Your task to perform on an android device: turn off notifications settings in the gmail app Image 0: 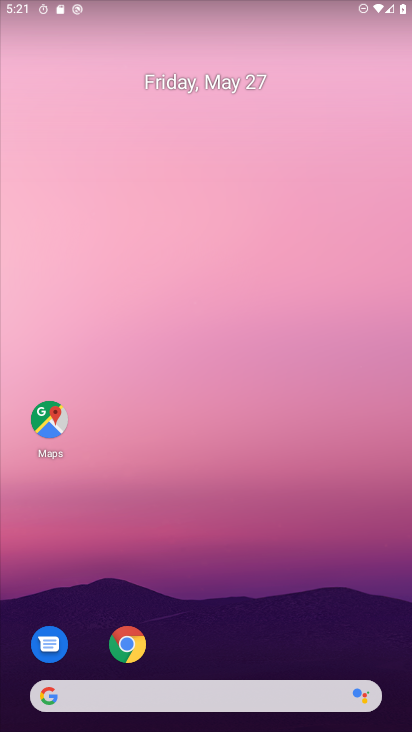
Step 0: drag from (211, 640) to (214, 6)
Your task to perform on an android device: turn off notifications settings in the gmail app Image 1: 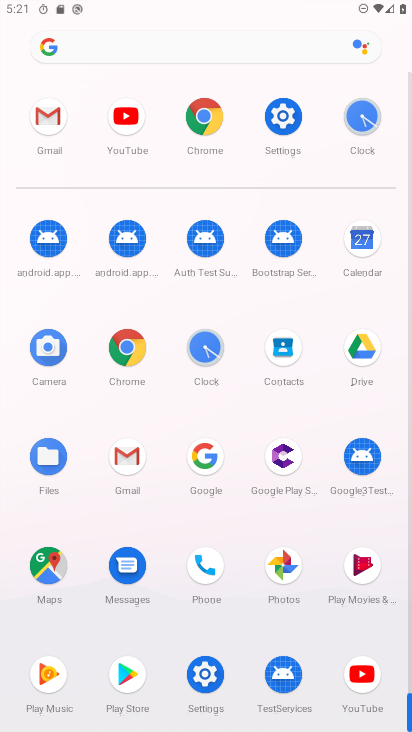
Step 1: click (132, 469)
Your task to perform on an android device: turn off notifications settings in the gmail app Image 2: 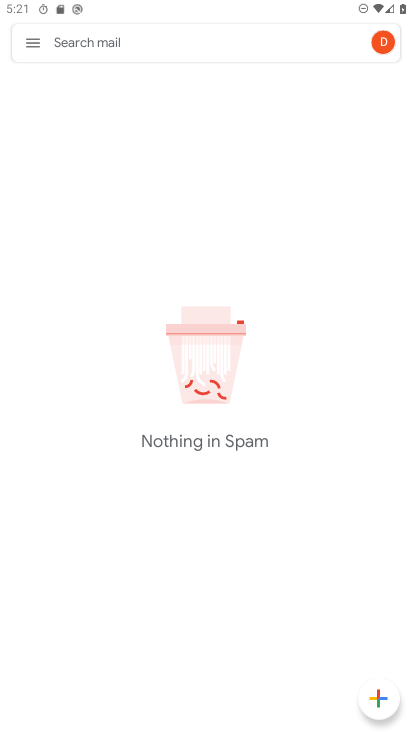
Step 2: click (29, 39)
Your task to perform on an android device: turn off notifications settings in the gmail app Image 3: 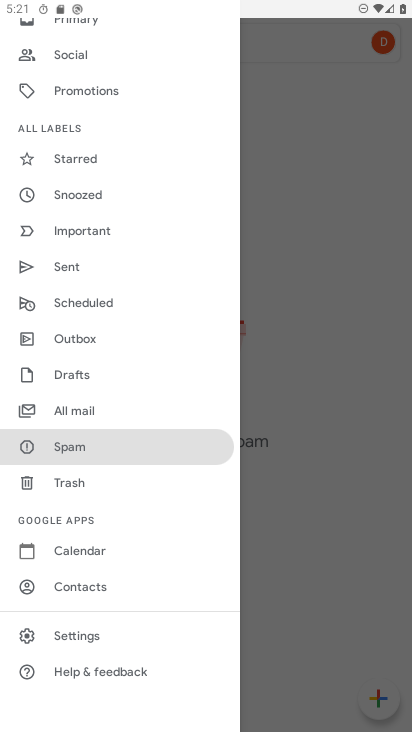
Step 3: click (74, 643)
Your task to perform on an android device: turn off notifications settings in the gmail app Image 4: 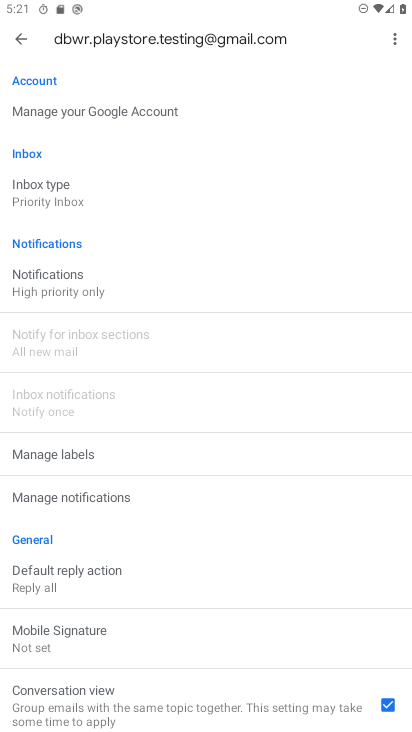
Step 4: click (106, 280)
Your task to perform on an android device: turn off notifications settings in the gmail app Image 5: 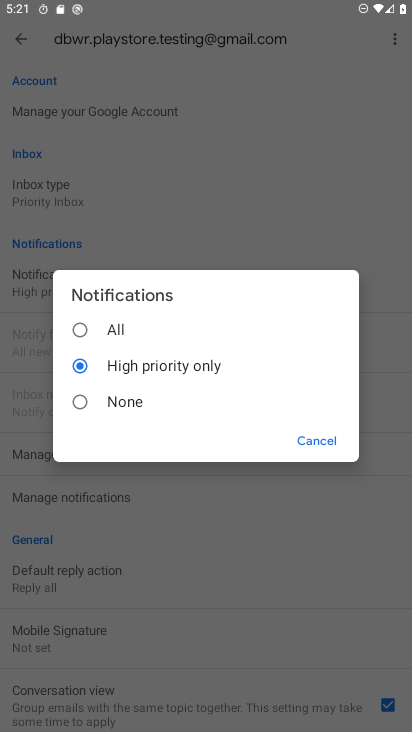
Step 5: click (97, 408)
Your task to perform on an android device: turn off notifications settings in the gmail app Image 6: 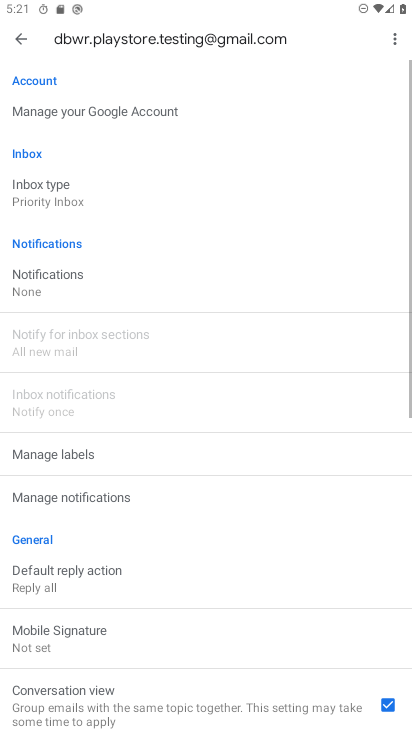
Step 6: task complete